Your task to perform on an android device: turn off location history Image 0: 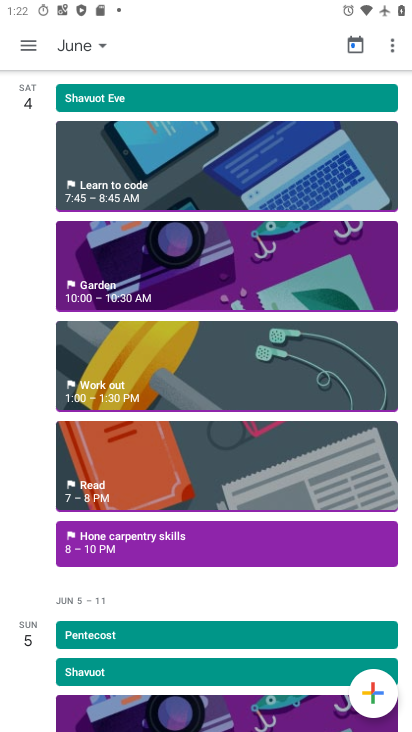
Step 0: press home button
Your task to perform on an android device: turn off location history Image 1: 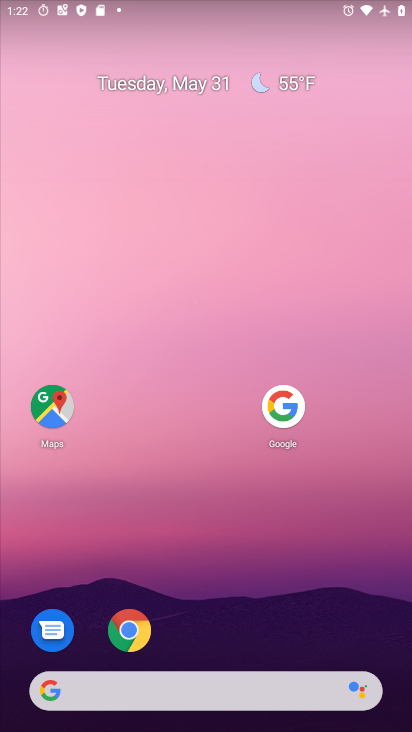
Step 1: click (58, 424)
Your task to perform on an android device: turn off location history Image 2: 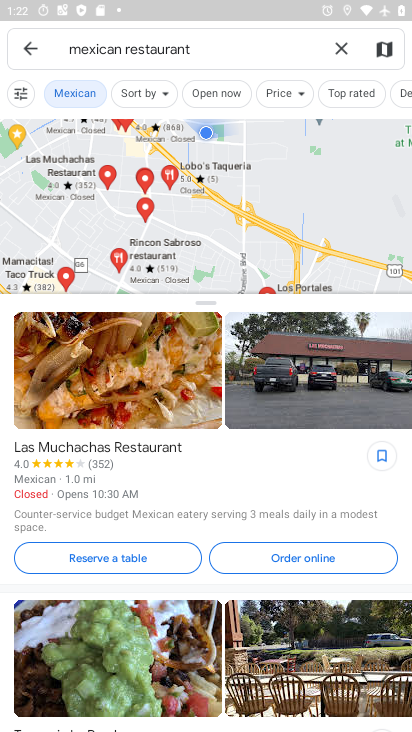
Step 2: click (30, 55)
Your task to perform on an android device: turn off location history Image 3: 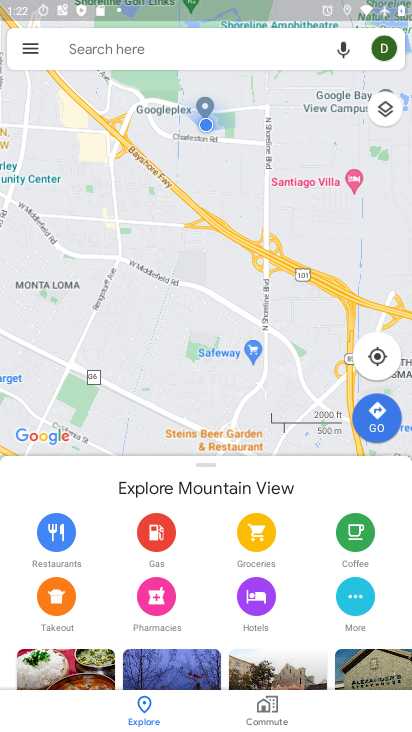
Step 3: click (31, 49)
Your task to perform on an android device: turn off location history Image 4: 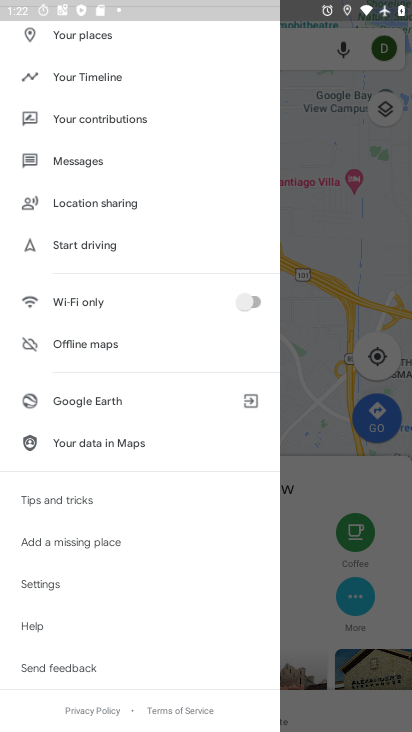
Step 4: click (97, 73)
Your task to perform on an android device: turn off location history Image 5: 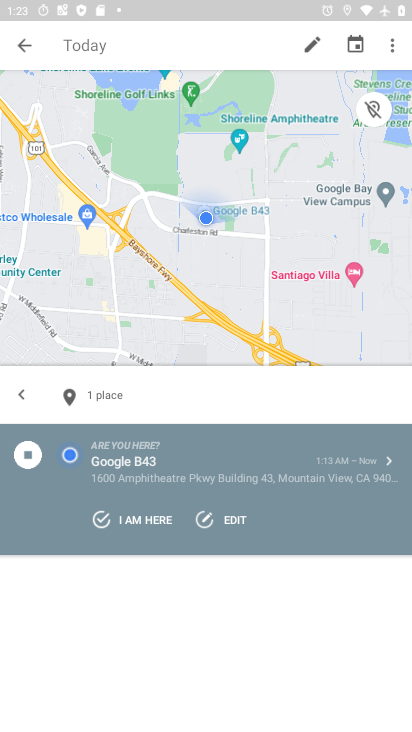
Step 5: click (392, 46)
Your task to perform on an android device: turn off location history Image 6: 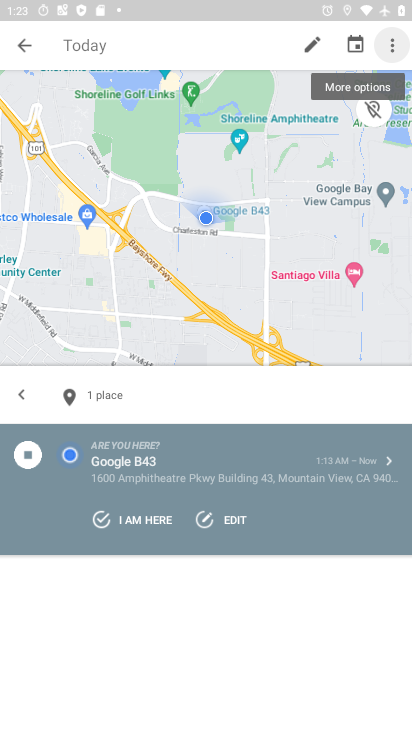
Step 6: click (392, 46)
Your task to perform on an android device: turn off location history Image 7: 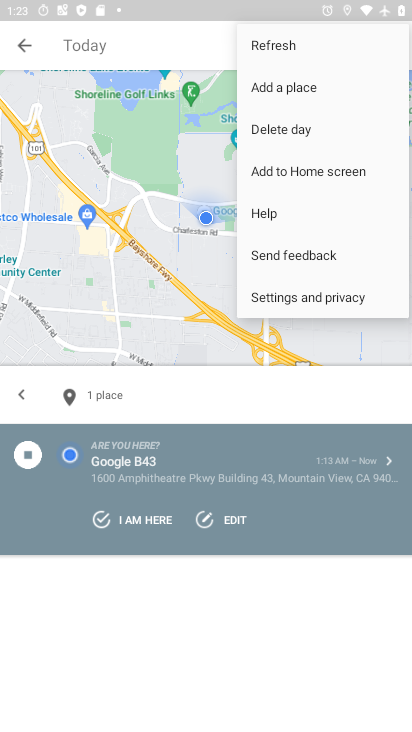
Step 7: click (295, 297)
Your task to perform on an android device: turn off location history Image 8: 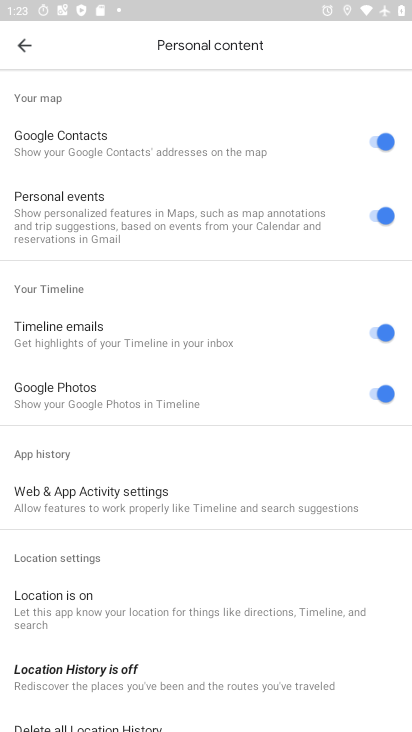
Step 8: drag from (147, 640) to (235, 371)
Your task to perform on an android device: turn off location history Image 9: 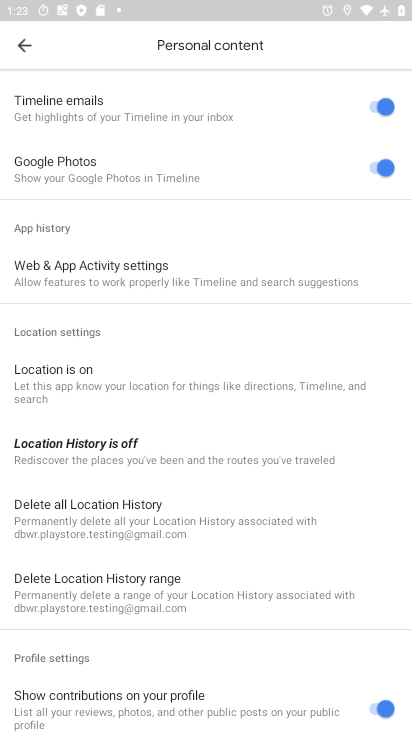
Step 9: click (153, 469)
Your task to perform on an android device: turn off location history Image 10: 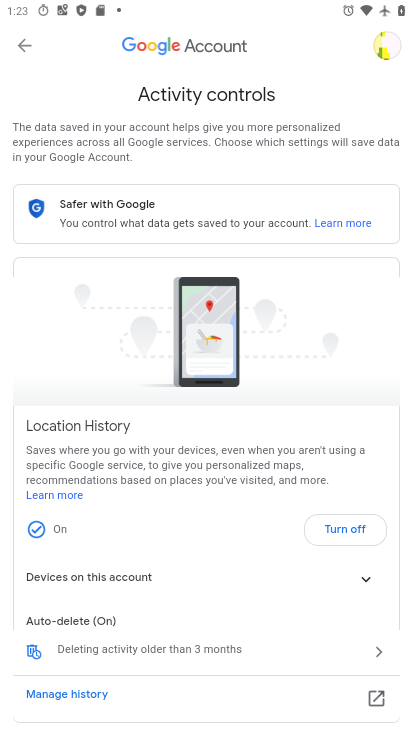
Step 10: click (360, 525)
Your task to perform on an android device: turn off location history Image 11: 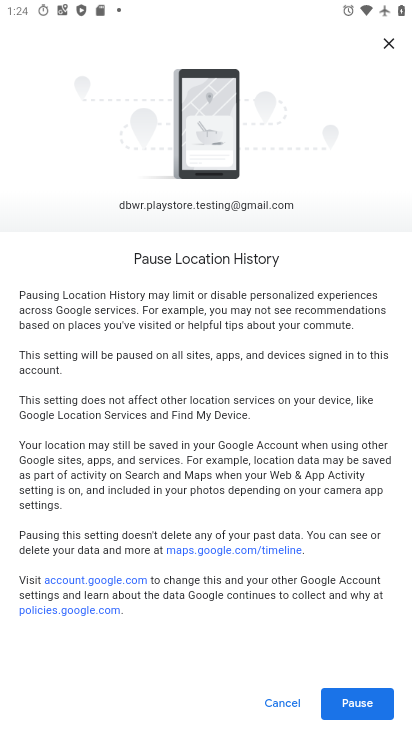
Step 11: click (373, 702)
Your task to perform on an android device: turn off location history Image 12: 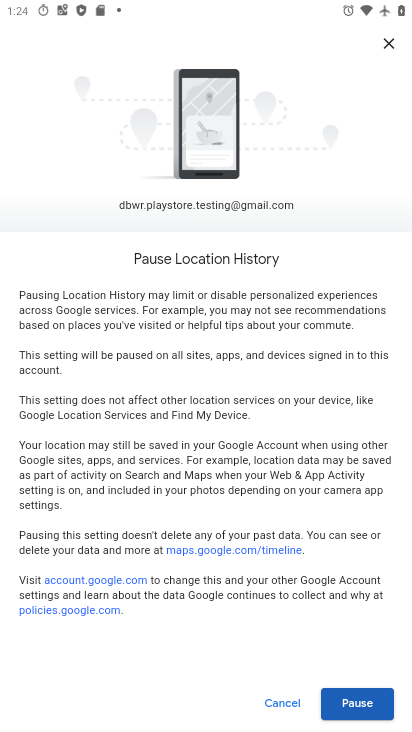
Step 12: click (373, 702)
Your task to perform on an android device: turn off location history Image 13: 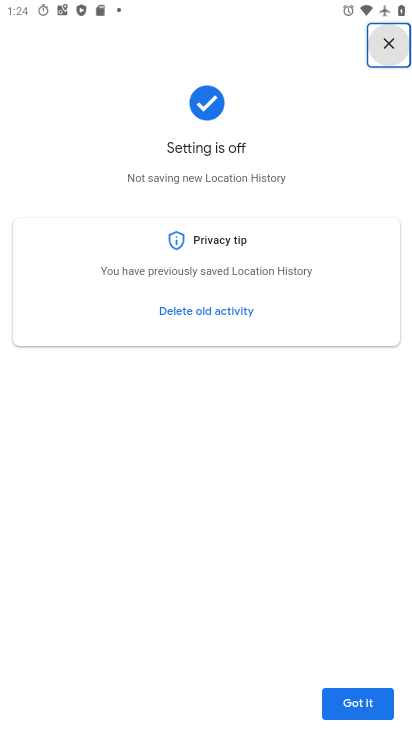
Step 13: click (356, 706)
Your task to perform on an android device: turn off location history Image 14: 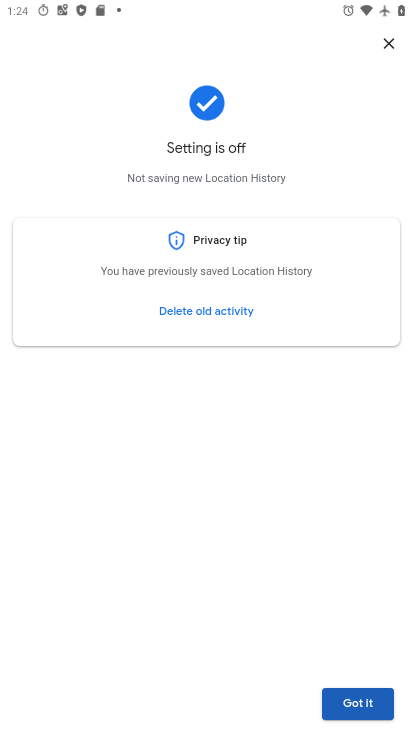
Step 14: click (363, 707)
Your task to perform on an android device: turn off location history Image 15: 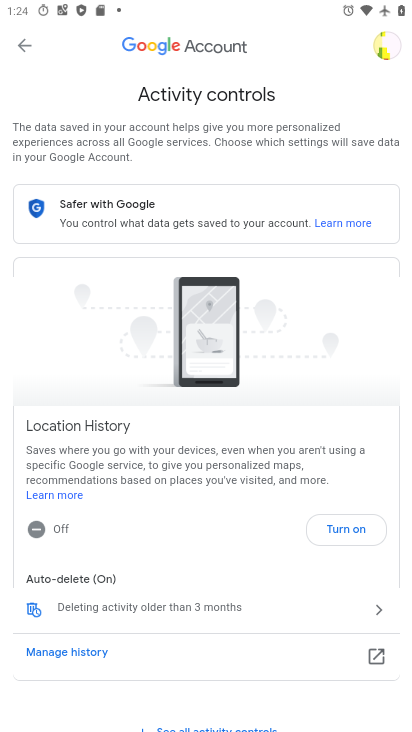
Step 15: task complete